Your task to perform on an android device: check out phone information Image 0: 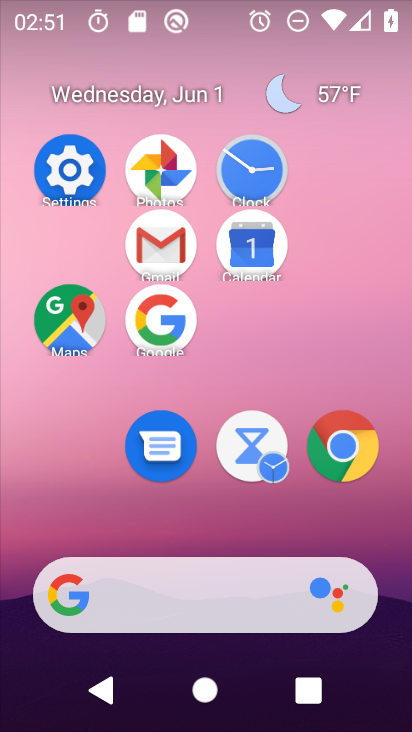
Step 0: click (69, 176)
Your task to perform on an android device: check out phone information Image 1: 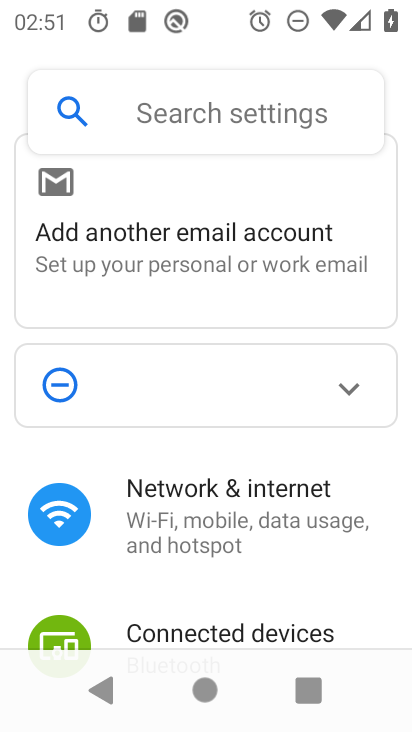
Step 1: drag from (262, 580) to (264, 127)
Your task to perform on an android device: check out phone information Image 2: 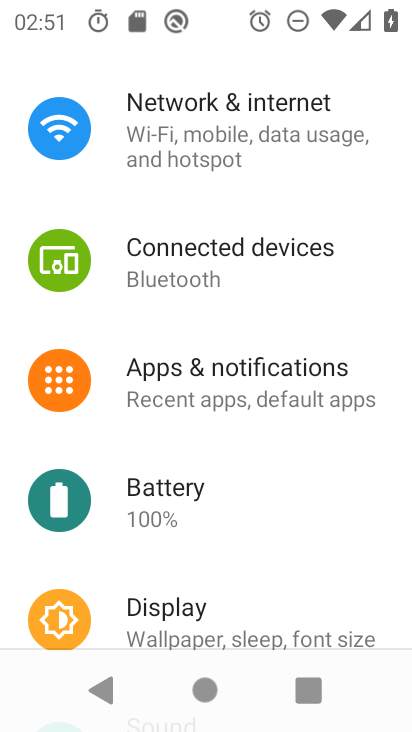
Step 2: drag from (242, 494) to (253, 83)
Your task to perform on an android device: check out phone information Image 3: 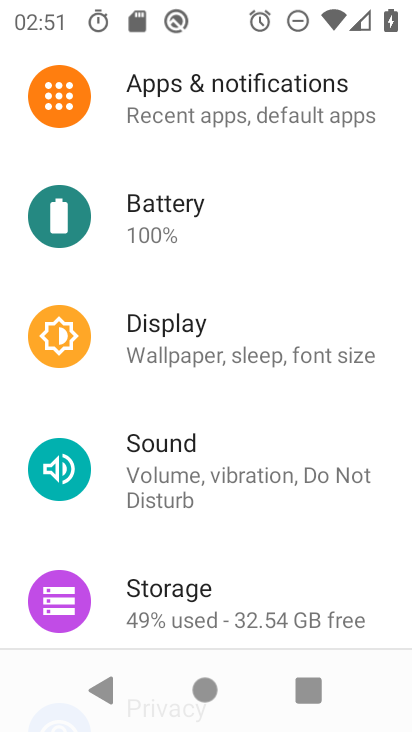
Step 3: drag from (291, 559) to (254, 80)
Your task to perform on an android device: check out phone information Image 4: 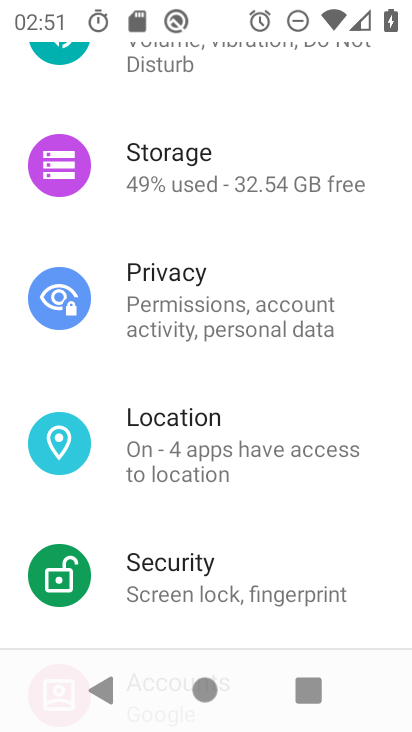
Step 4: drag from (243, 531) to (229, 124)
Your task to perform on an android device: check out phone information Image 5: 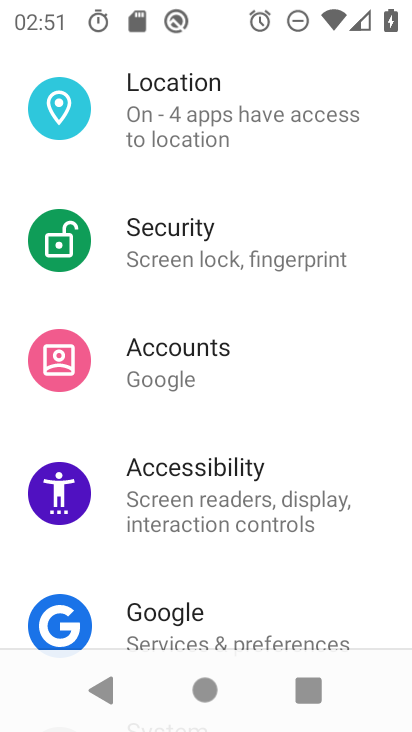
Step 5: drag from (263, 583) to (258, 146)
Your task to perform on an android device: check out phone information Image 6: 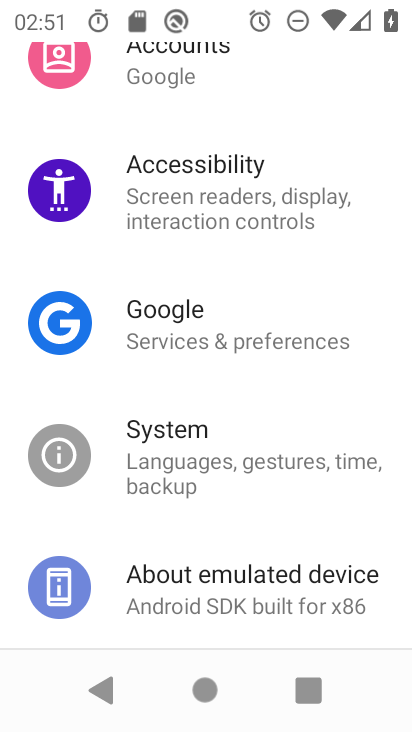
Step 6: click (297, 566)
Your task to perform on an android device: check out phone information Image 7: 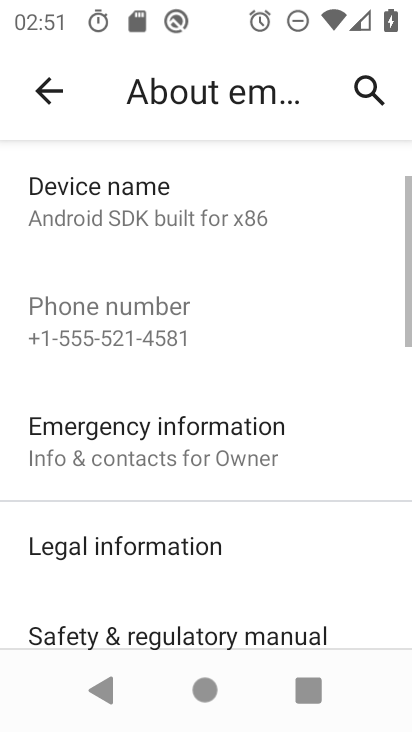
Step 7: drag from (297, 565) to (258, 133)
Your task to perform on an android device: check out phone information Image 8: 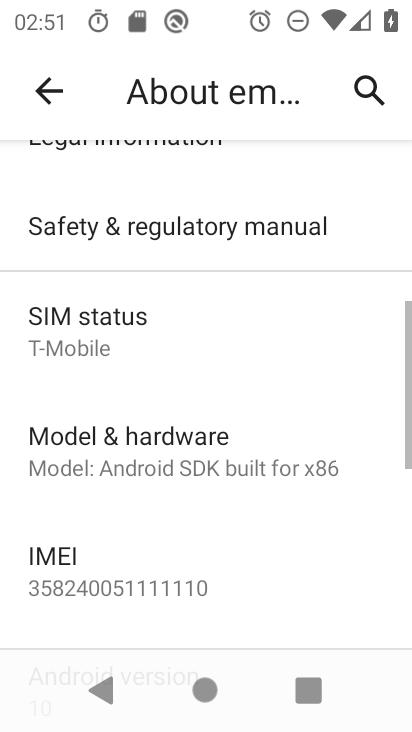
Step 8: click (215, 434)
Your task to perform on an android device: check out phone information Image 9: 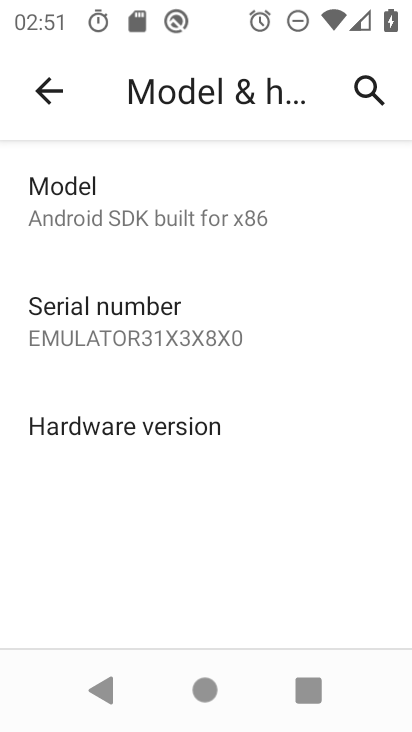
Step 9: task complete